Your task to perform on an android device: Open Chrome and go to settings Image 0: 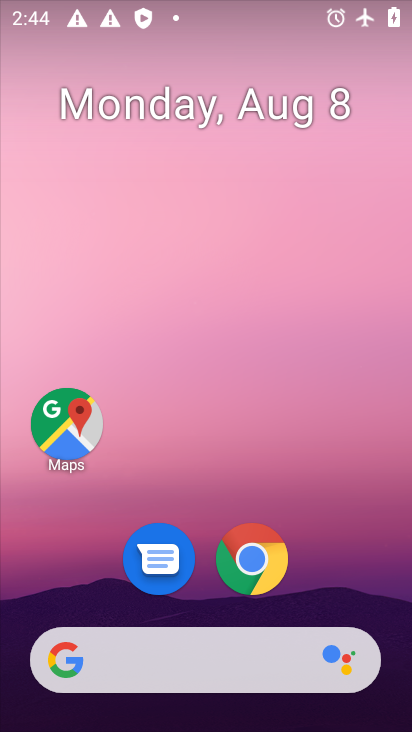
Step 0: click (250, 559)
Your task to perform on an android device: Open Chrome and go to settings Image 1: 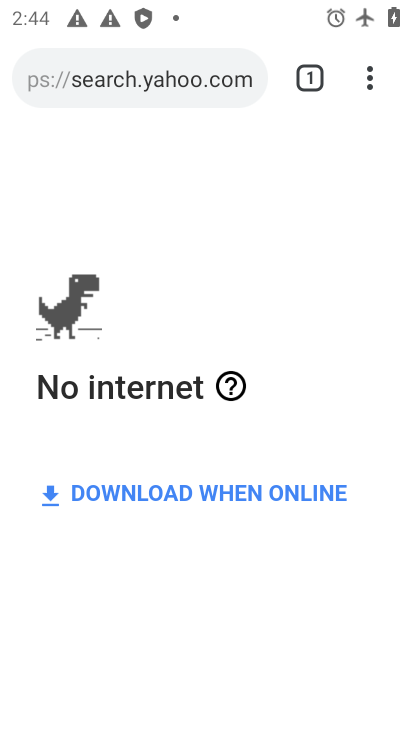
Step 1: click (368, 78)
Your task to perform on an android device: Open Chrome and go to settings Image 2: 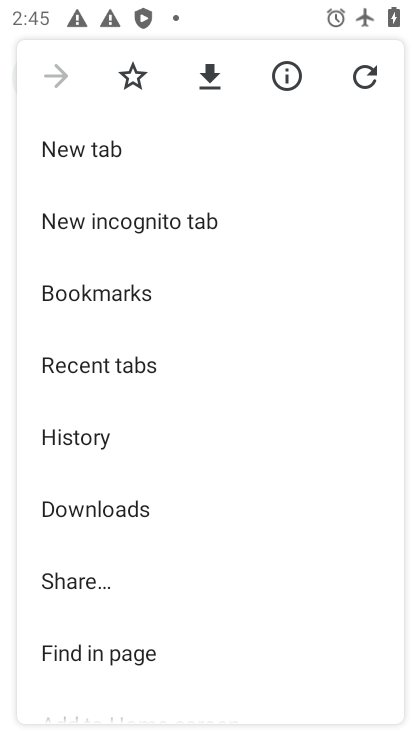
Step 2: drag from (71, 545) to (94, 453)
Your task to perform on an android device: Open Chrome and go to settings Image 3: 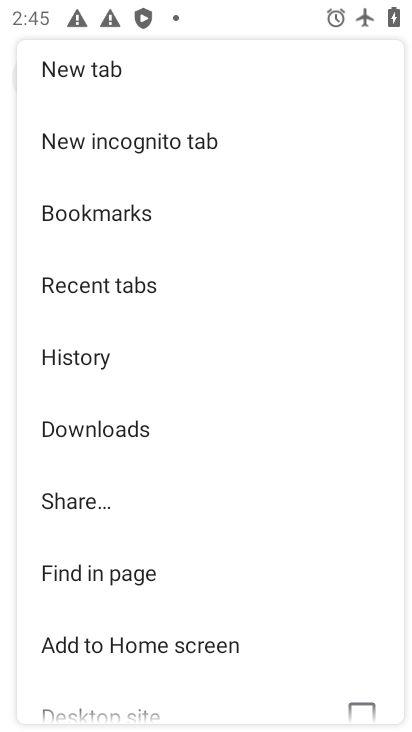
Step 3: drag from (102, 605) to (151, 510)
Your task to perform on an android device: Open Chrome and go to settings Image 4: 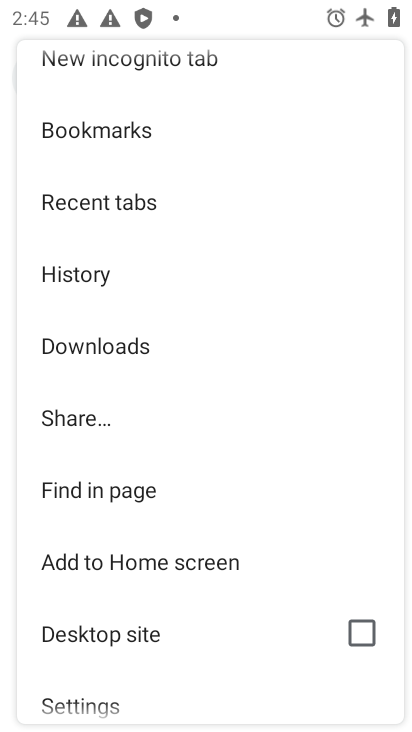
Step 4: drag from (104, 609) to (164, 534)
Your task to perform on an android device: Open Chrome and go to settings Image 5: 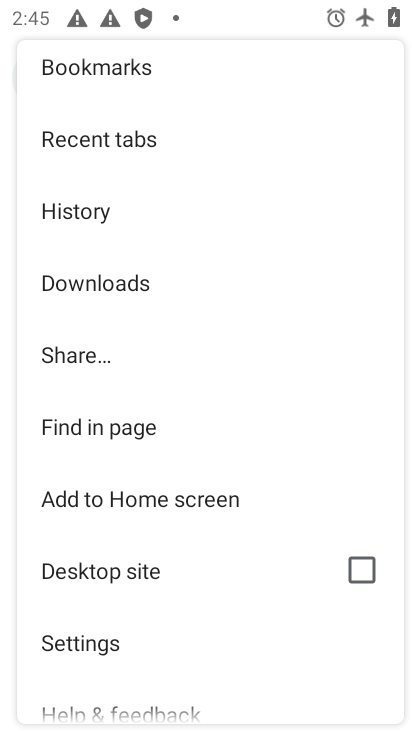
Step 5: click (92, 640)
Your task to perform on an android device: Open Chrome and go to settings Image 6: 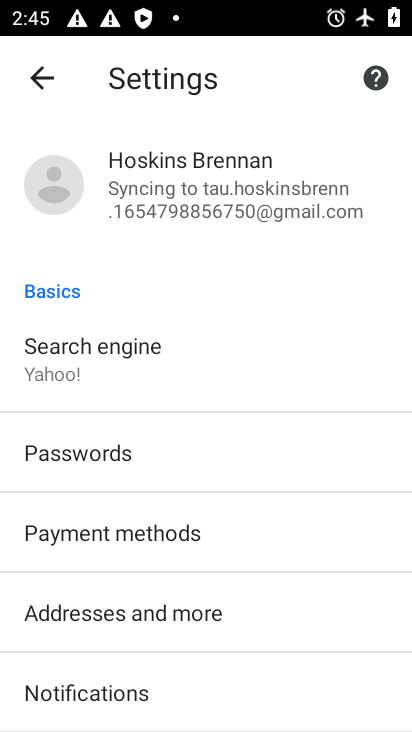
Step 6: task complete